Your task to perform on an android device: turn off translation in the chrome app Image 0: 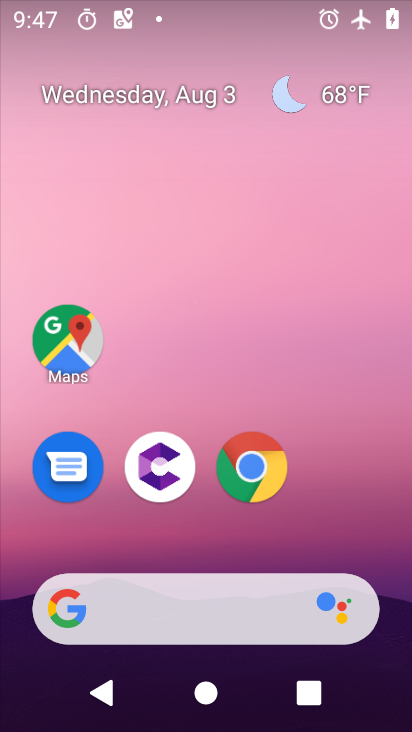
Step 0: drag from (330, 489) to (315, 62)
Your task to perform on an android device: turn off translation in the chrome app Image 1: 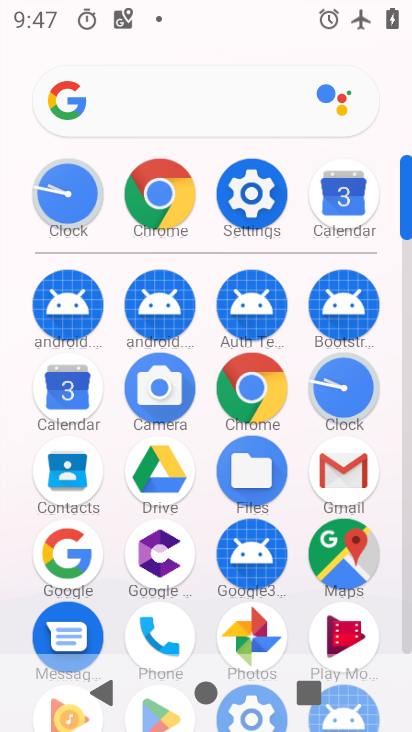
Step 1: click (255, 392)
Your task to perform on an android device: turn off translation in the chrome app Image 2: 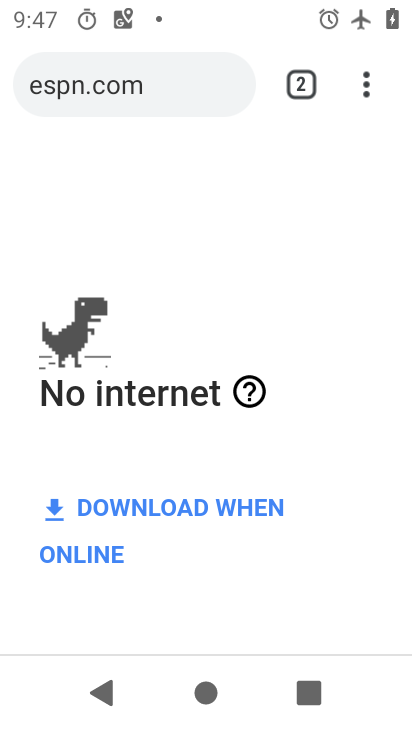
Step 2: drag from (363, 83) to (142, 532)
Your task to perform on an android device: turn off translation in the chrome app Image 3: 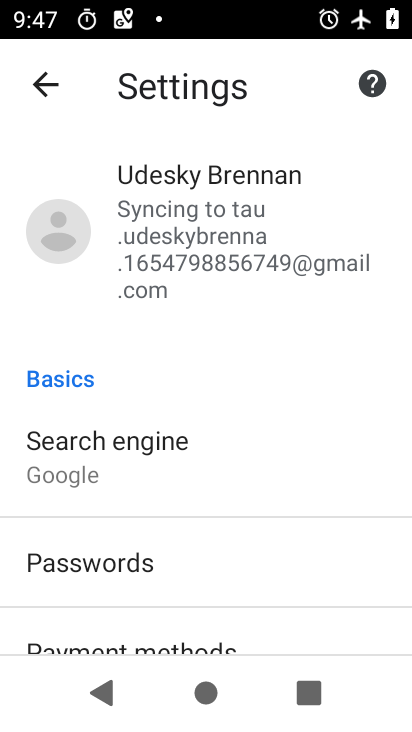
Step 3: drag from (292, 560) to (321, 79)
Your task to perform on an android device: turn off translation in the chrome app Image 4: 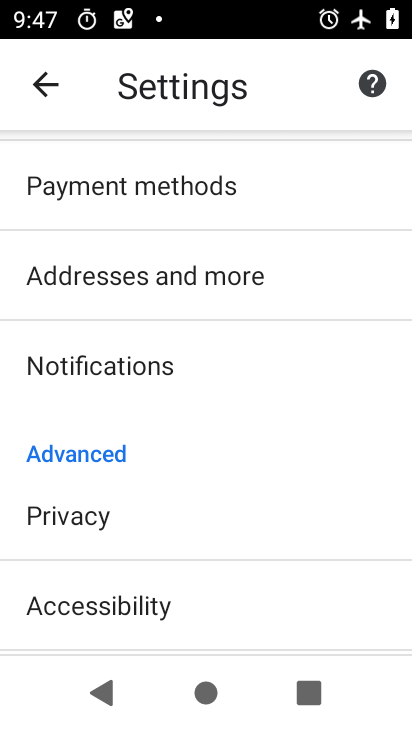
Step 4: drag from (247, 591) to (270, 223)
Your task to perform on an android device: turn off translation in the chrome app Image 5: 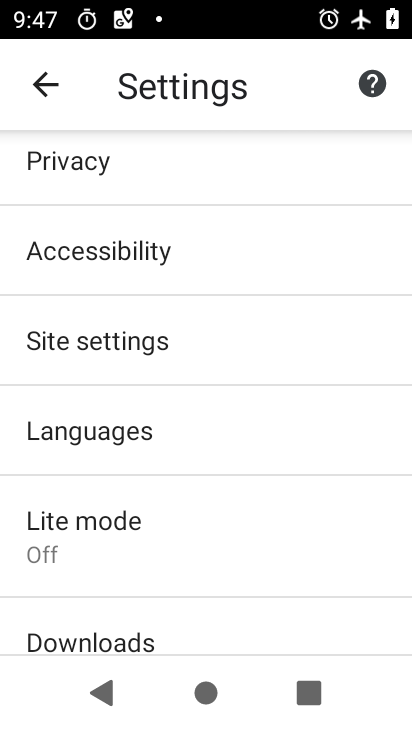
Step 5: drag from (180, 616) to (288, 164)
Your task to perform on an android device: turn off translation in the chrome app Image 6: 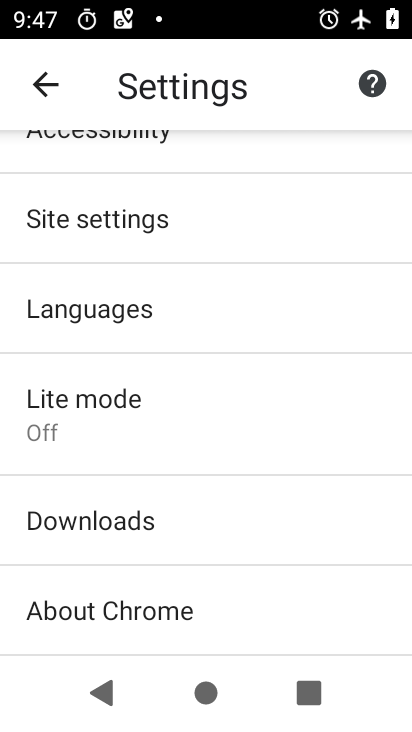
Step 6: click (154, 310)
Your task to perform on an android device: turn off translation in the chrome app Image 7: 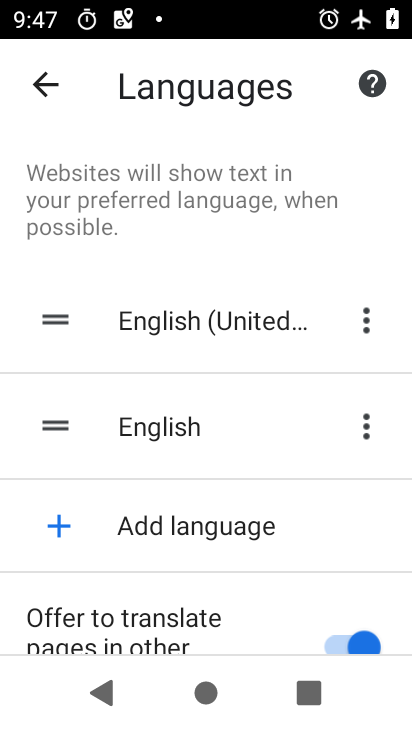
Step 7: click (342, 643)
Your task to perform on an android device: turn off translation in the chrome app Image 8: 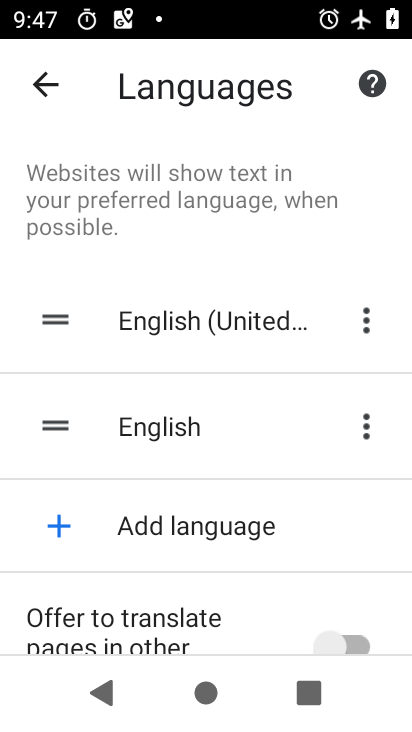
Step 8: task complete